Your task to perform on an android device: Open Maps and search for coffee Image 0: 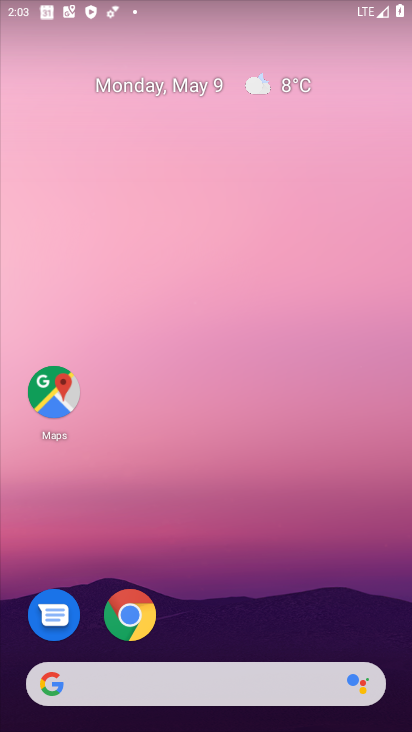
Step 0: click (52, 391)
Your task to perform on an android device: Open Maps and search for coffee Image 1: 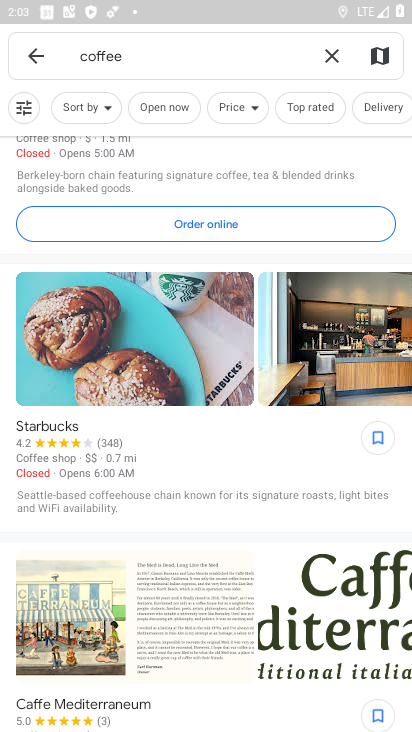
Step 1: task complete